Your task to perform on an android device: turn notification dots on Image 0: 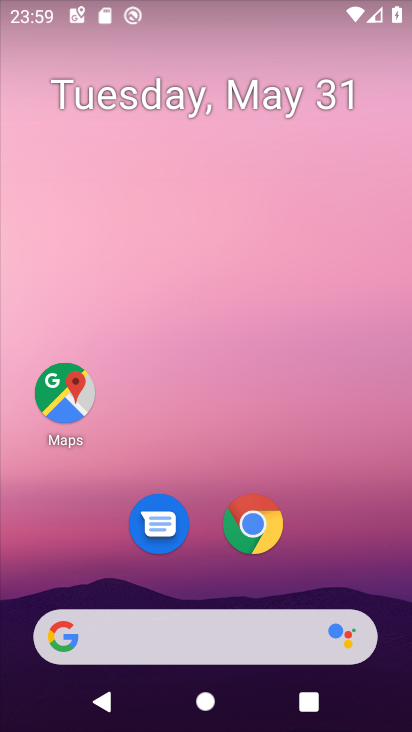
Step 0: drag from (330, 468) to (296, 39)
Your task to perform on an android device: turn notification dots on Image 1: 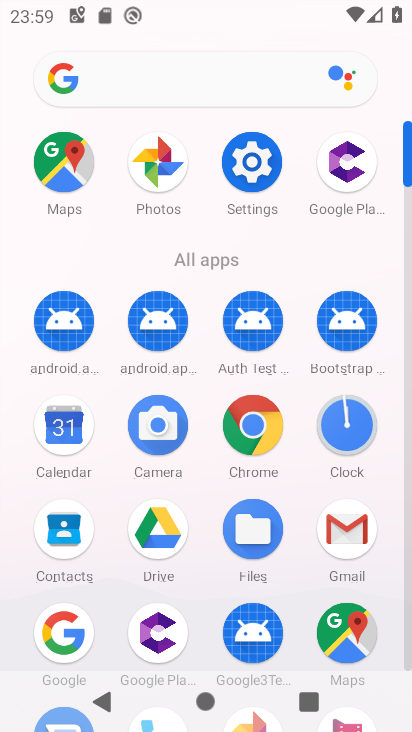
Step 1: click (255, 152)
Your task to perform on an android device: turn notification dots on Image 2: 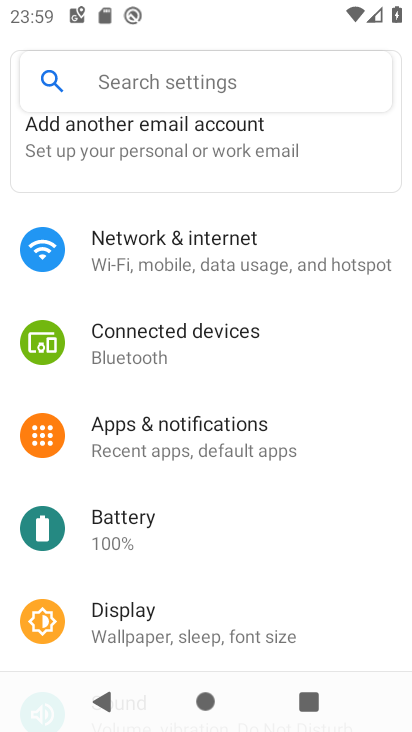
Step 2: click (248, 442)
Your task to perform on an android device: turn notification dots on Image 3: 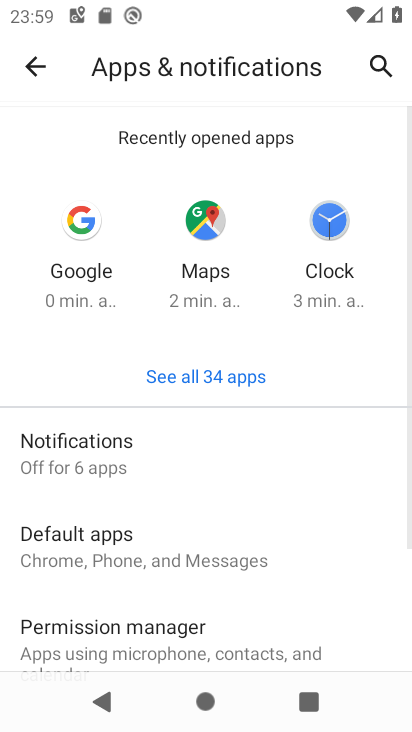
Step 3: click (206, 449)
Your task to perform on an android device: turn notification dots on Image 4: 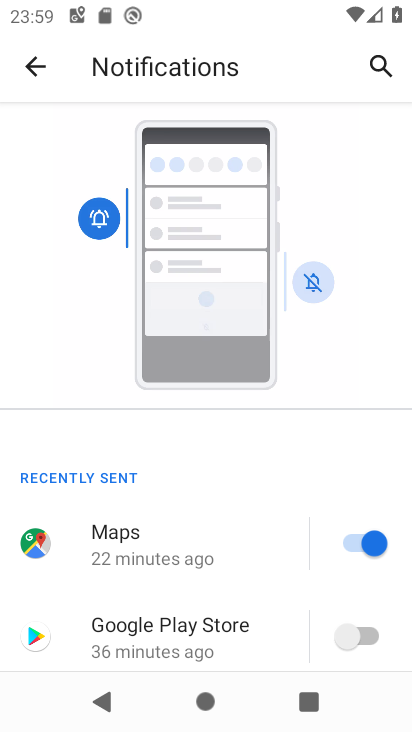
Step 4: drag from (204, 525) to (220, 115)
Your task to perform on an android device: turn notification dots on Image 5: 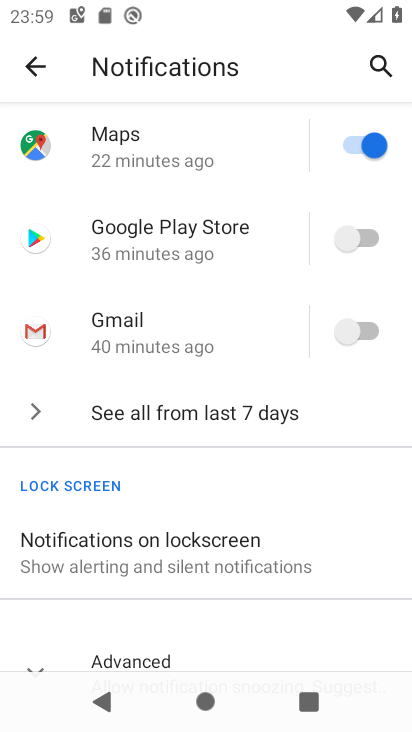
Step 5: drag from (133, 613) to (143, 315)
Your task to perform on an android device: turn notification dots on Image 6: 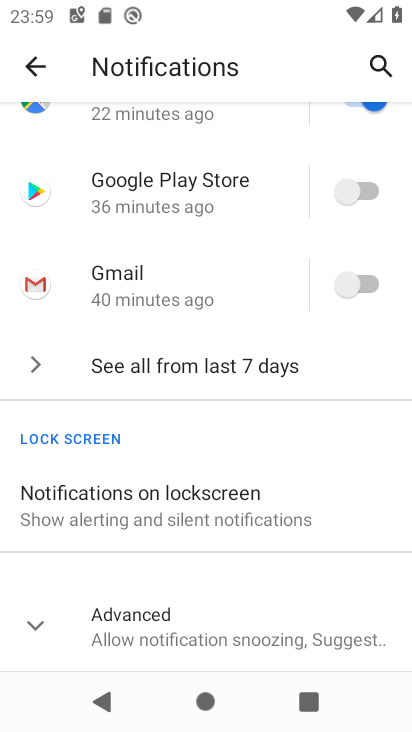
Step 6: click (40, 631)
Your task to perform on an android device: turn notification dots on Image 7: 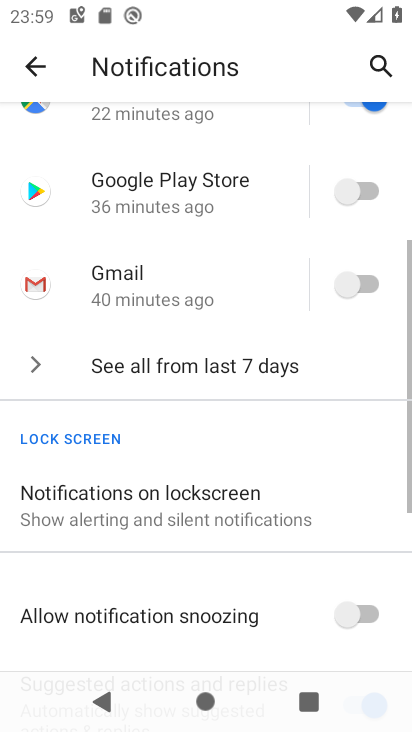
Step 7: drag from (198, 554) to (217, 199)
Your task to perform on an android device: turn notification dots on Image 8: 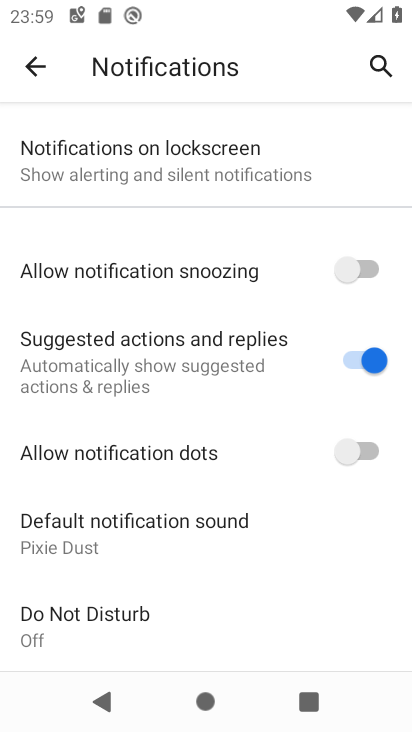
Step 8: click (352, 446)
Your task to perform on an android device: turn notification dots on Image 9: 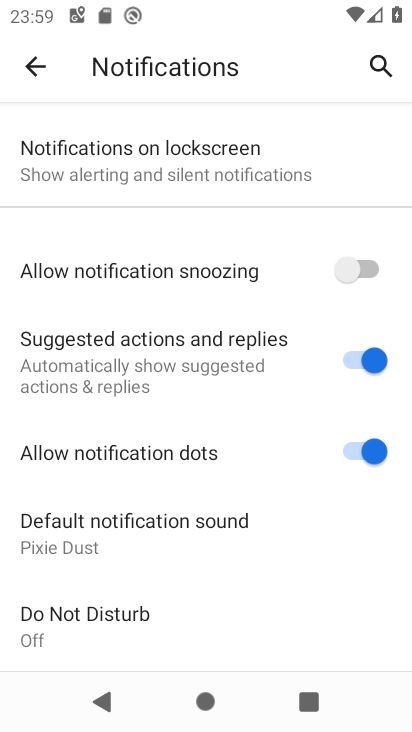
Step 9: task complete